Your task to perform on an android device: Open Google Image 0: 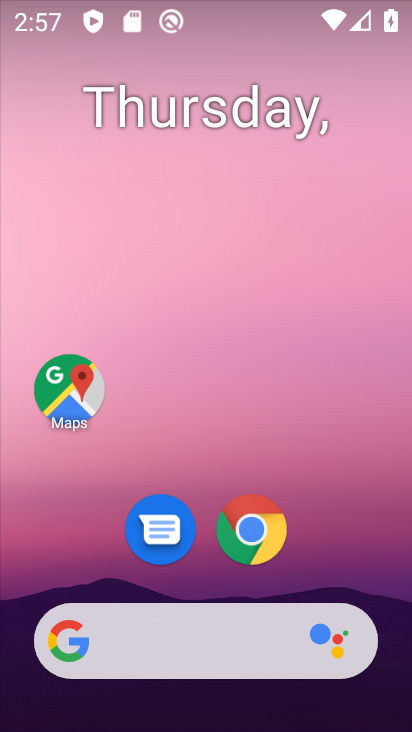
Step 0: drag from (178, 590) to (237, 134)
Your task to perform on an android device: Open Google Image 1: 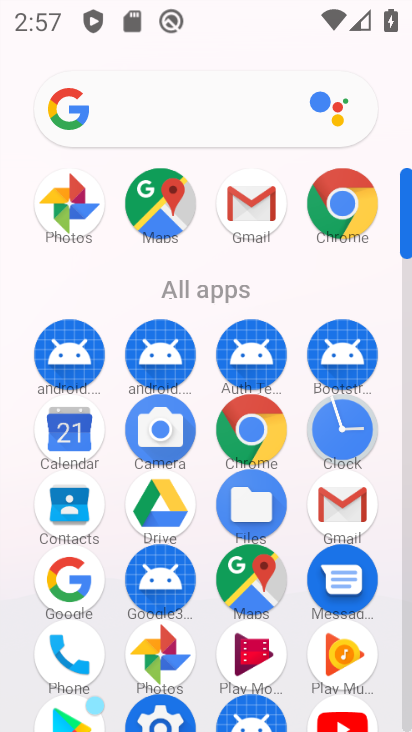
Step 1: click (68, 585)
Your task to perform on an android device: Open Google Image 2: 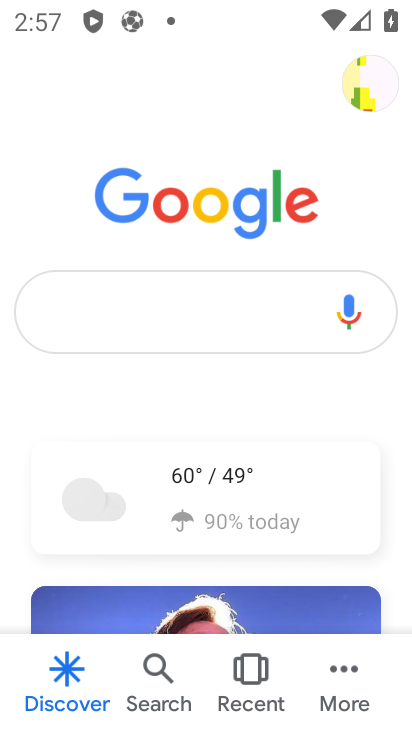
Step 2: task complete